Your task to perform on an android device: empty trash in google photos Image 0: 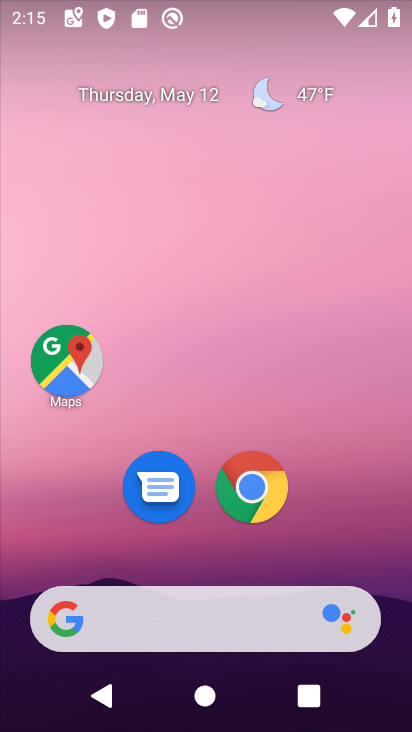
Step 0: drag from (345, 537) to (191, 9)
Your task to perform on an android device: empty trash in google photos Image 1: 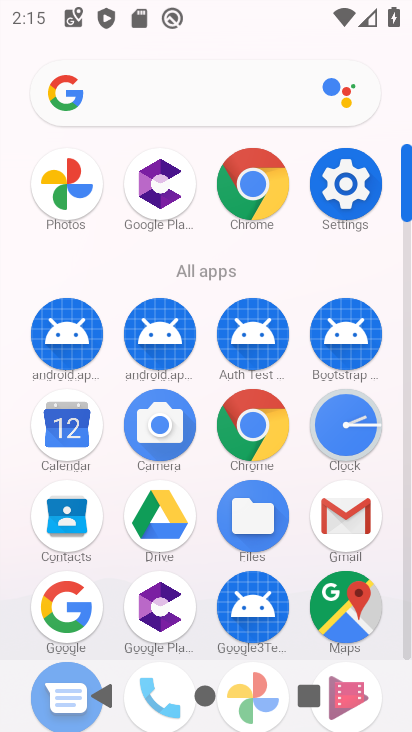
Step 1: click (72, 192)
Your task to perform on an android device: empty trash in google photos Image 2: 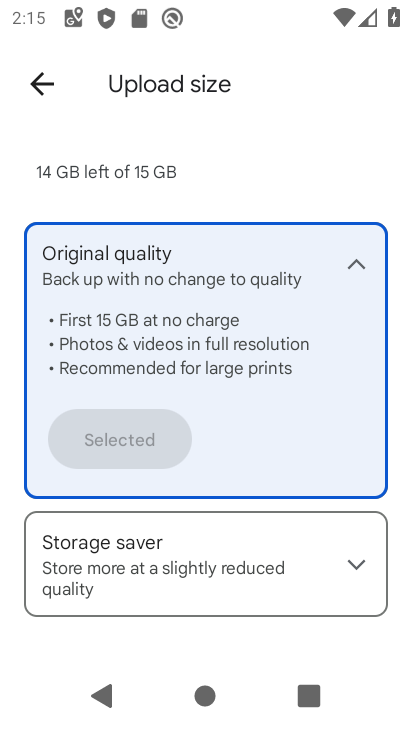
Step 2: click (45, 83)
Your task to perform on an android device: empty trash in google photos Image 3: 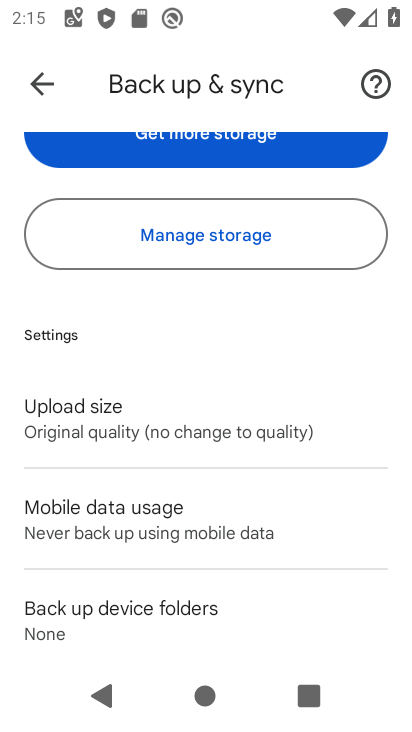
Step 3: click (37, 73)
Your task to perform on an android device: empty trash in google photos Image 4: 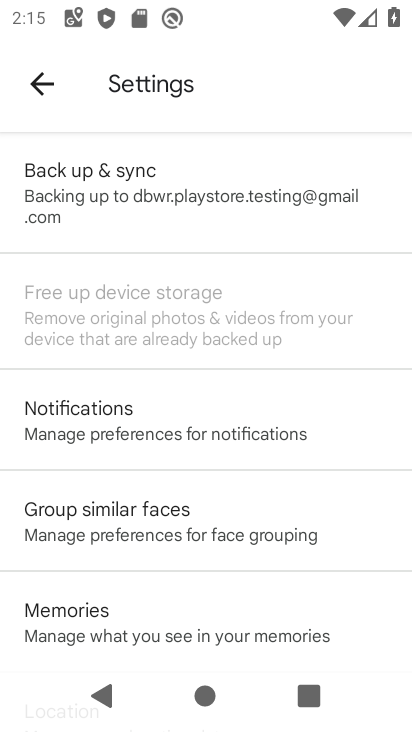
Step 4: click (33, 86)
Your task to perform on an android device: empty trash in google photos Image 5: 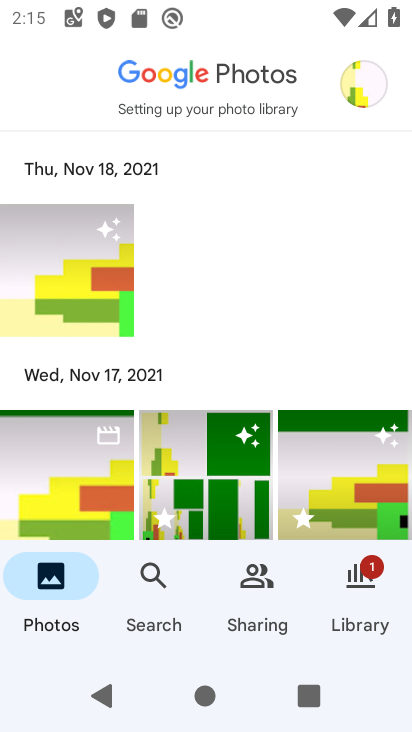
Step 5: click (360, 87)
Your task to perform on an android device: empty trash in google photos Image 6: 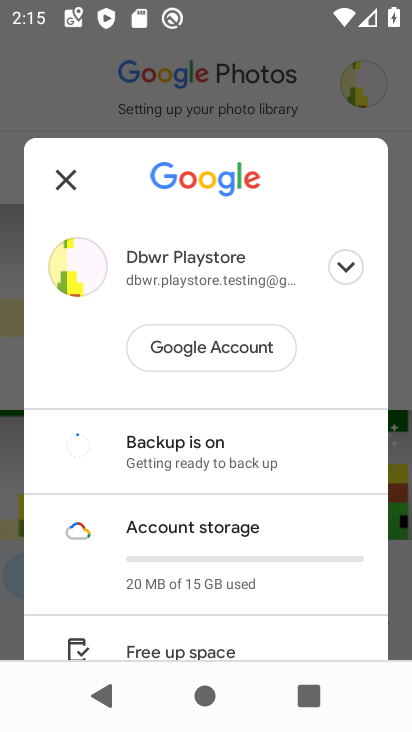
Step 6: click (201, 86)
Your task to perform on an android device: empty trash in google photos Image 7: 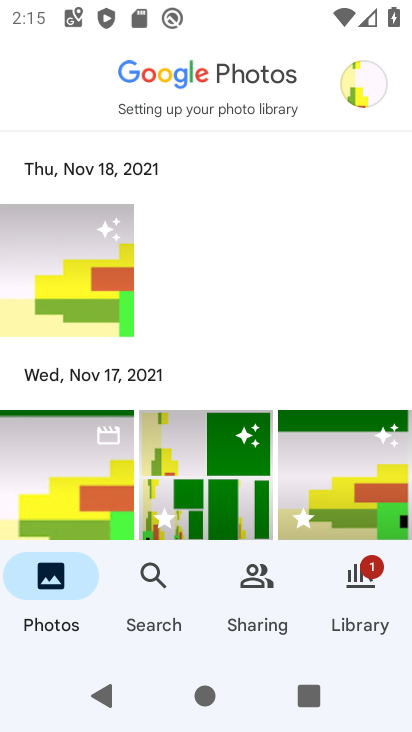
Step 7: click (359, 80)
Your task to perform on an android device: empty trash in google photos Image 8: 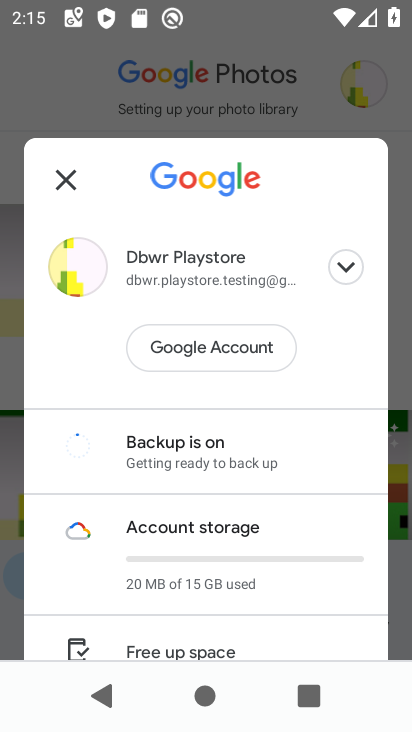
Step 8: drag from (188, 483) to (225, 140)
Your task to perform on an android device: empty trash in google photos Image 9: 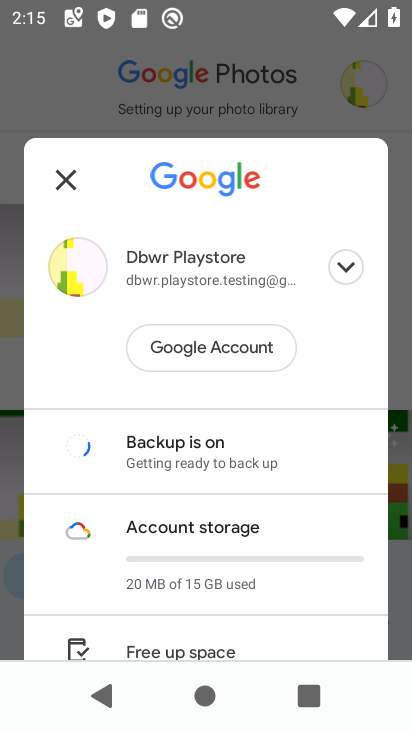
Step 9: click (171, 644)
Your task to perform on an android device: empty trash in google photos Image 10: 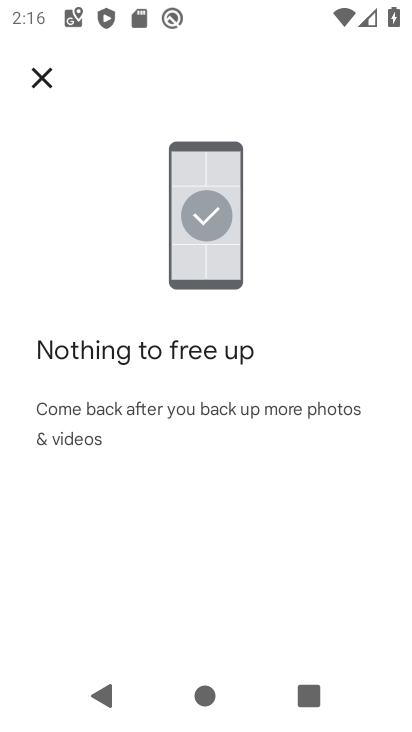
Step 10: click (45, 71)
Your task to perform on an android device: empty trash in google photos Image 11: 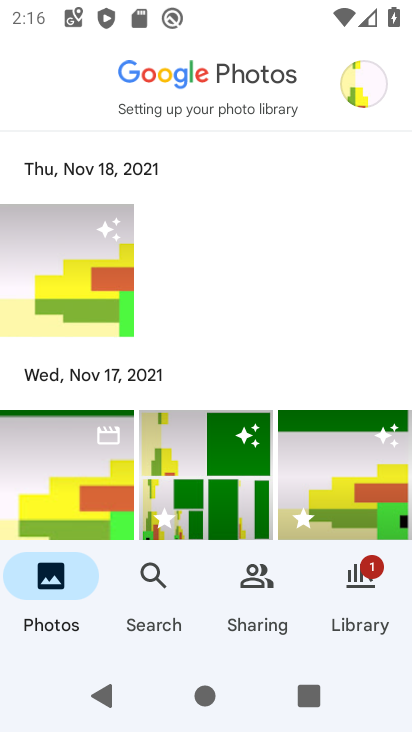
Step 11: drag from (257, 528) to (383, 201)
Your task to perform on an android device: empty trash in google photos Image 12: 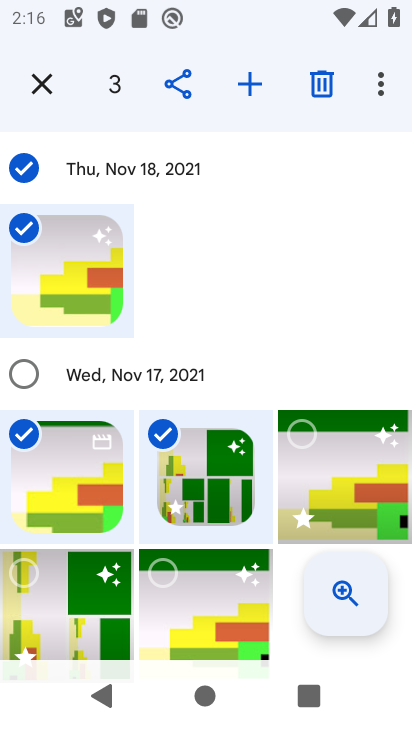
Step 12: click (365, 115)
Your task to perform on an android device: empty trash in google photos Image 13: 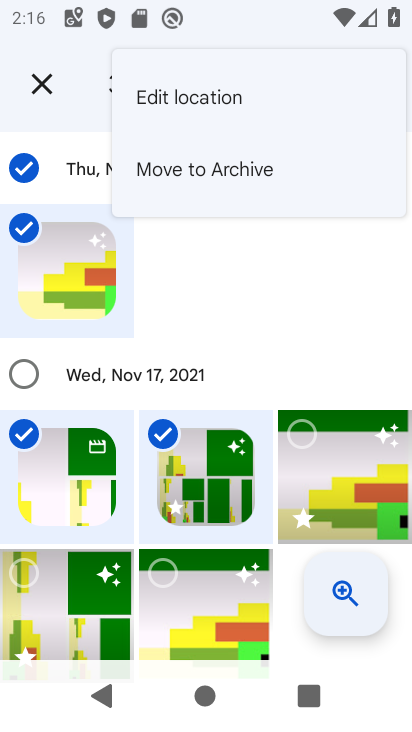
Step 13: click (45, 89)
Your task to perform on an android device: empty trash in google photos Image 14: 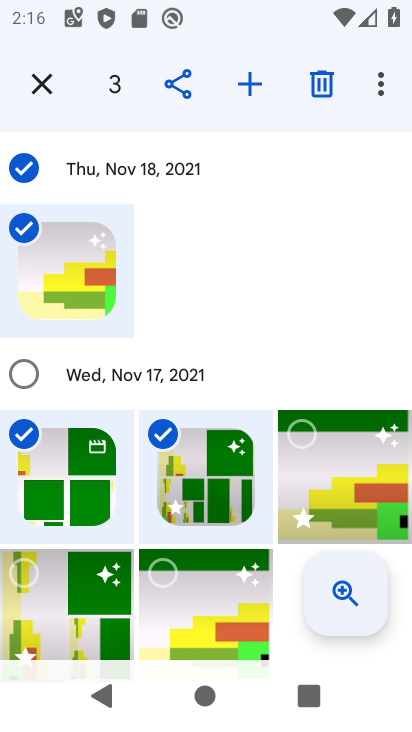
Step 14: click (45, 89)
Your task to perform on an android device: empty trash in google photos Image 15: 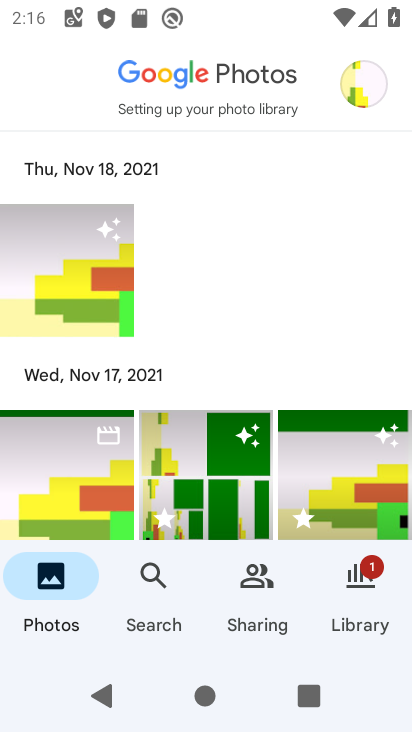
Step 15: click (360, 569)
Your task to perform on an android device: empty trash in google photos Image 16: 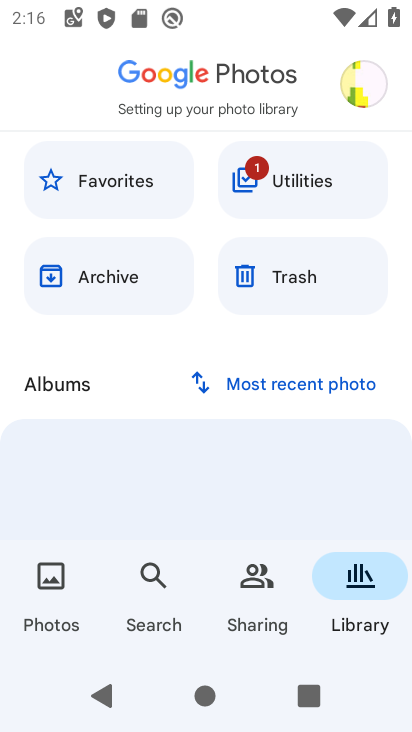
Step 16: click (303, 283)
Your task to perform on an android device: empty trash in google photos Image 17: 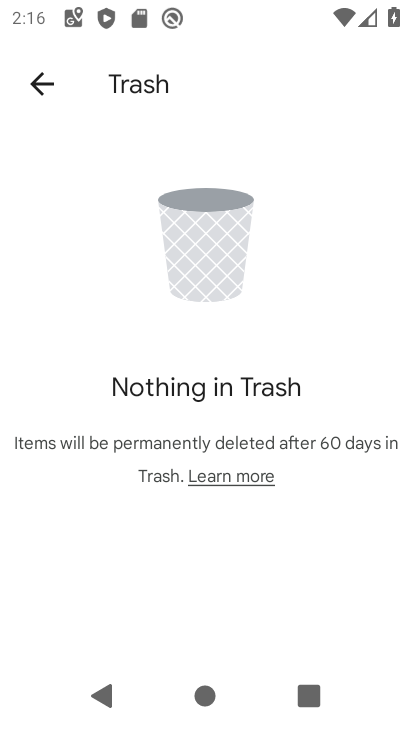
Step 17: task complete